Your task to perform on an android device: Open Google Chrome Image 0: 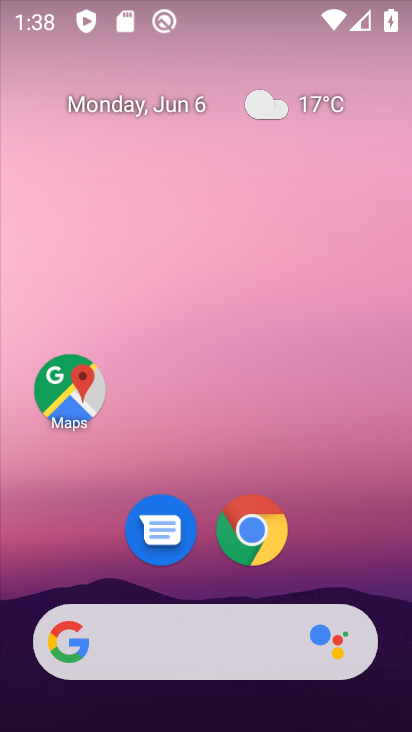
Step 0: drag from (323, 456) to (287, 175)
Your task to perform on an android device: Open Google Chrome Image 1: 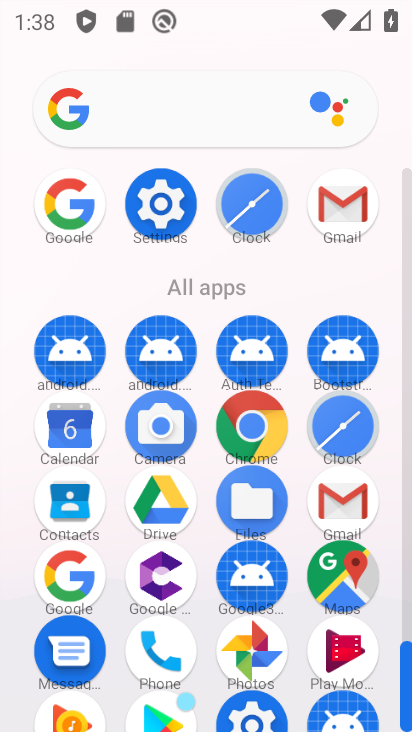
Step 1: click (63, 570)
Your task to perform on an android device: Open Google Chrome Image 2: 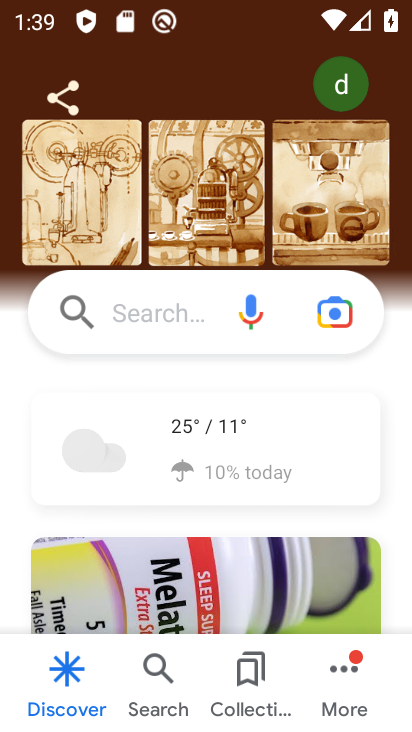
Step 2: task complete